Your task to perform on an android device: Open Google Maps and go to "Timeline" Image 0: 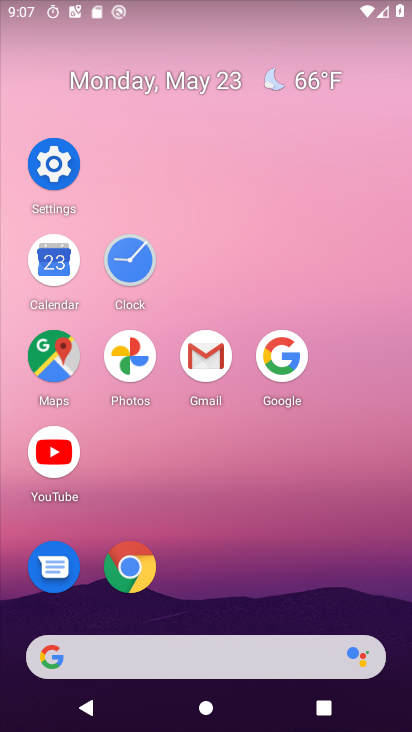
Step 0: click (37, 354)
Your task to perform on an android device: Open Google Maps and go to "Timeline" Image 1: 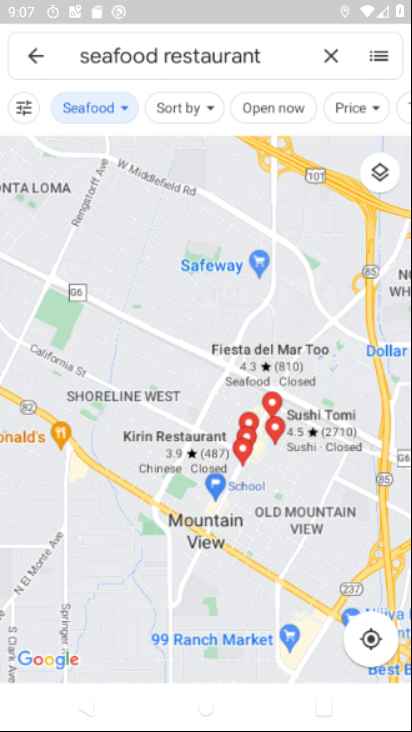
Step 1: click (29, 49)
Your task to perform on an android device: Open Google Maps and go to "Timeline" Image 2: 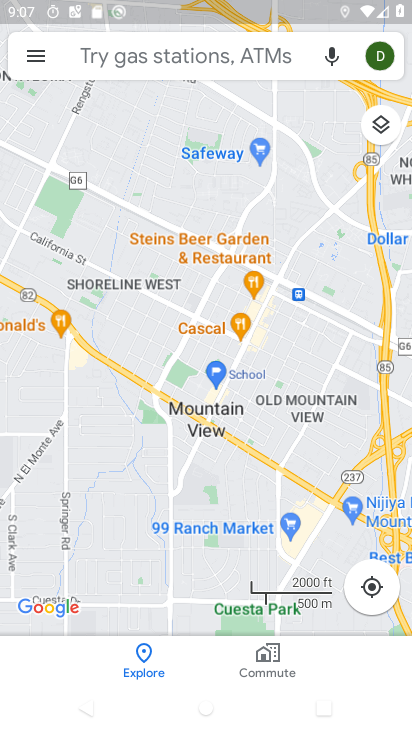
Step 2: click (29, 49)
Your task to perform on an android device: Open Google Maps and go to "Timeline" Image 3: 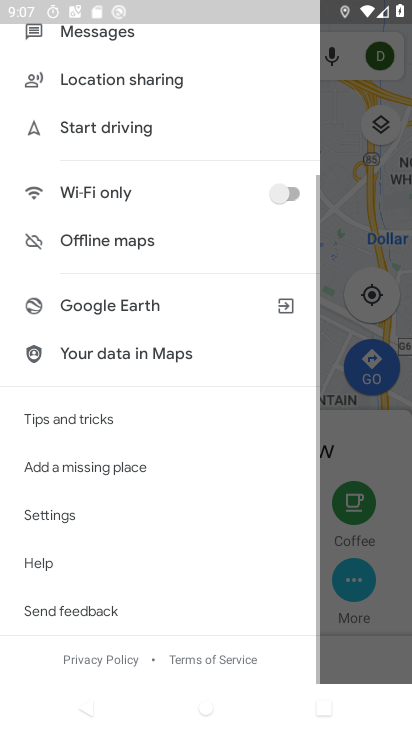
Step 3: drag from (143, 153) to (100, 518)
Your task to perform on an android device: Open Google Maps and go to "Timeline" Image 4: 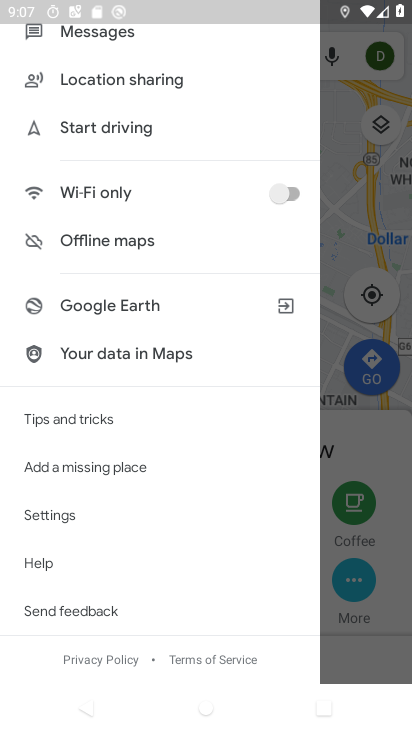
Step 4: drag from (196, 112) to (178, 519)
Your task to perform on an android device: Open Google Maps and go to "Timeline" Image 5: 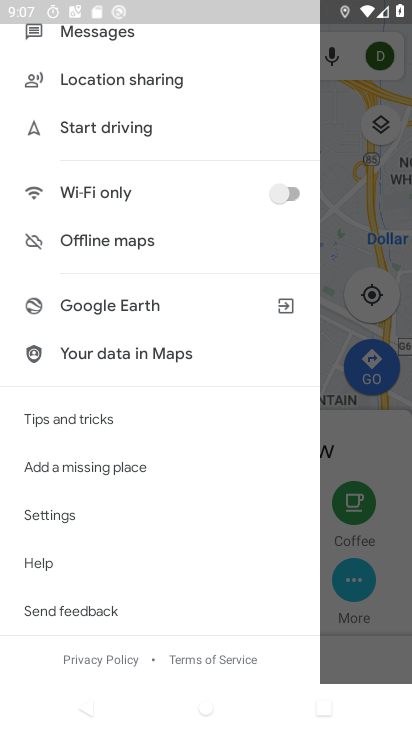
Step 5: drag from (153, 111) to (193, 474)
Your task to perform on an android device: Open Google Maps and go to "Timeline" Image 6: 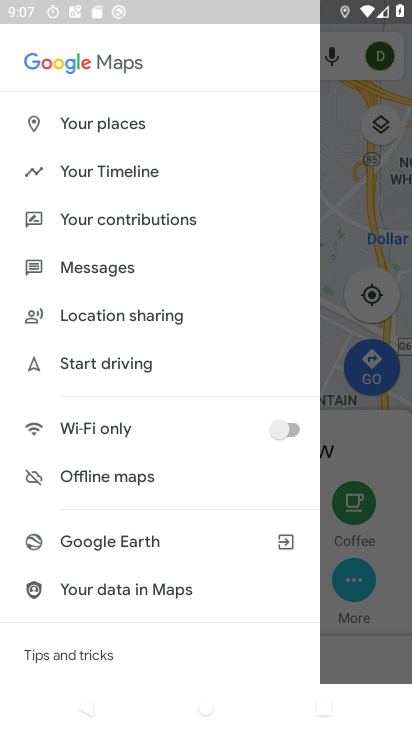
Step 6: click (73, 179)
Your task to perform on an android device: Open Google Maps and go to "Timeline" Image 7: 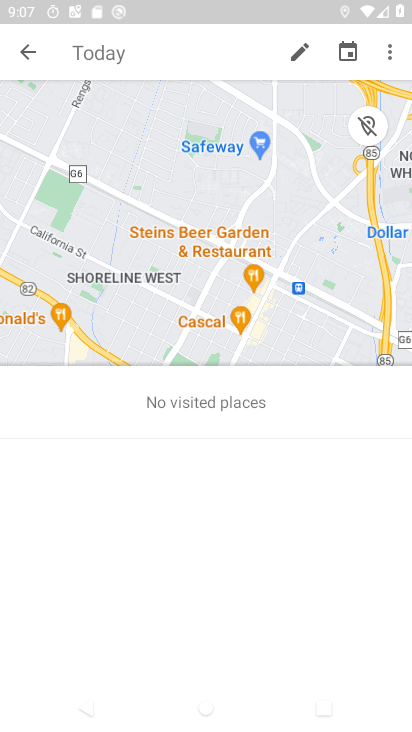
Step 7: task complete